Your task to perform on an android device: Is it going to rain tomorrow? Image 0: 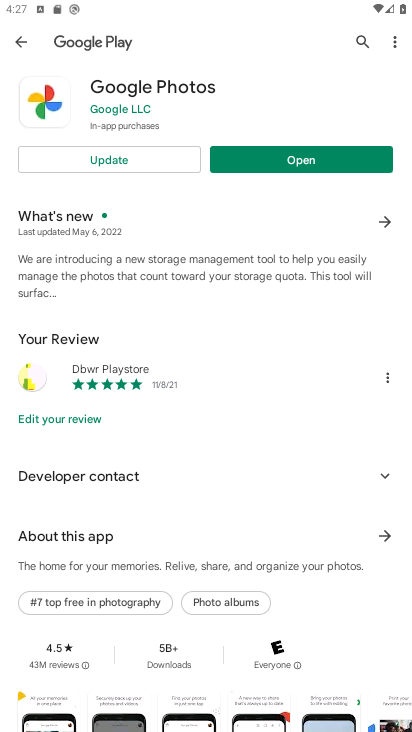
Step 0: press home button
Your task to perform on an android device: Is it going to rain tomorrow? Image 1: 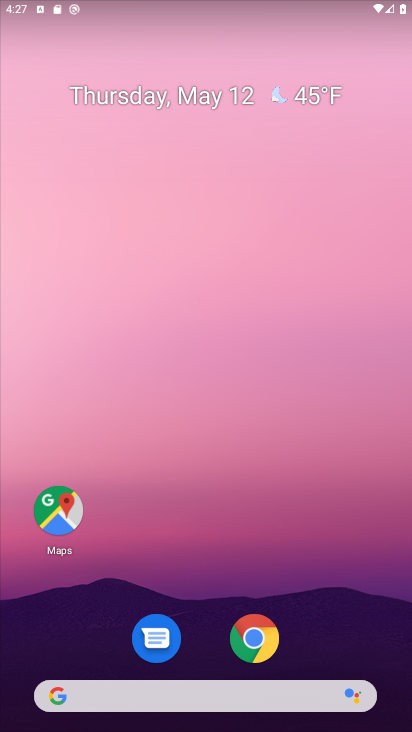
Step 1: click (302, 98)
Your task to perform on an android device: Is it going to rain tomorrow? Image 2: 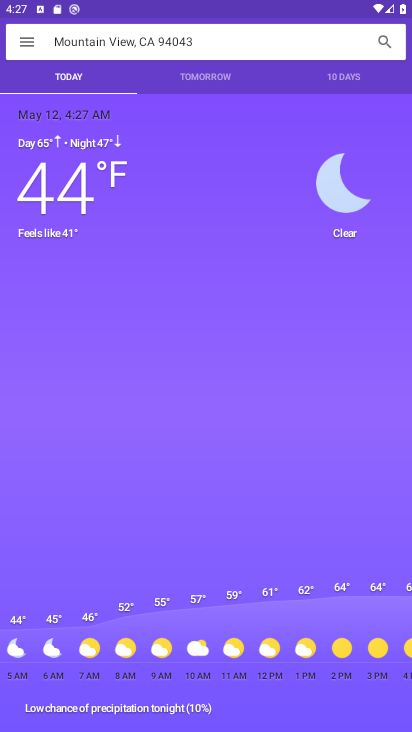
Step 2: click (203, 77)
Your task to perform on an android device: Is it going to rain tomorrow? Image 3: 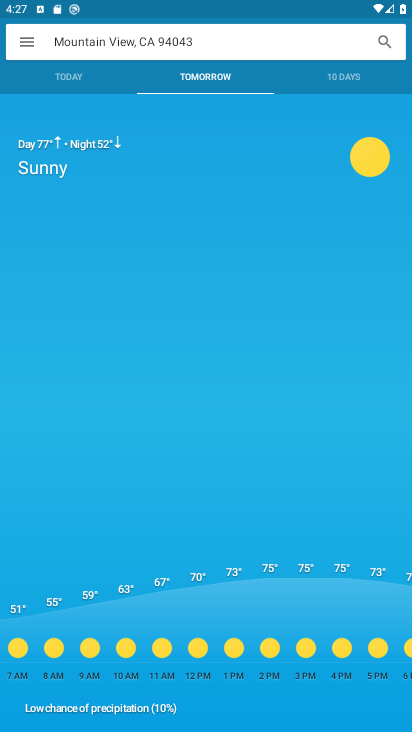
Step 3: task complete